Your task to perform on an android device: Go to location settings Image 0: 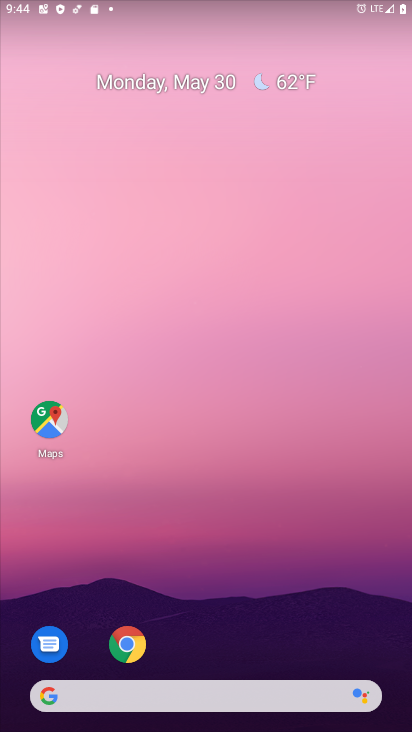
Step 0: drag from (345, 634) to (287, 143)
Your task to perform on an android device: Go to location settings Image 1: 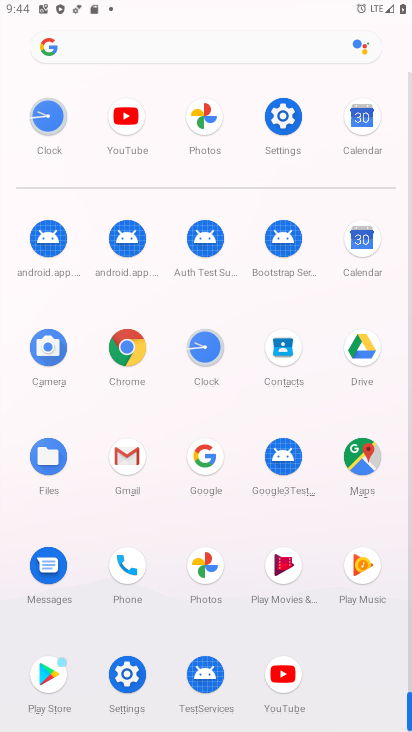
Step 1: click (123, 672)
Your task to perform on an android device: Go to location settings Image 2: 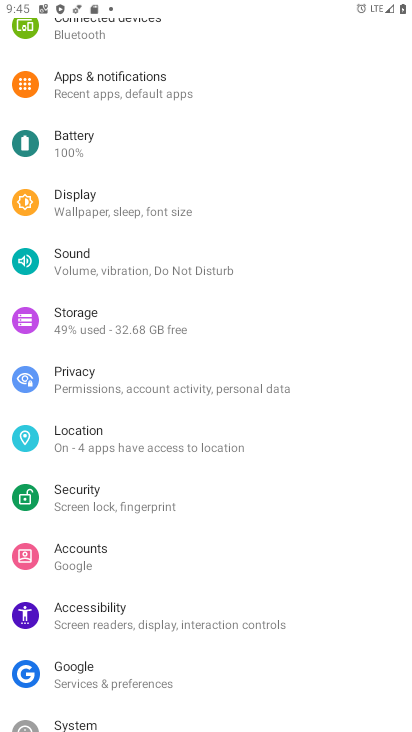
Step 2: click (77, 421)
Your task to perform on an android device: Go to location settings Image 3: 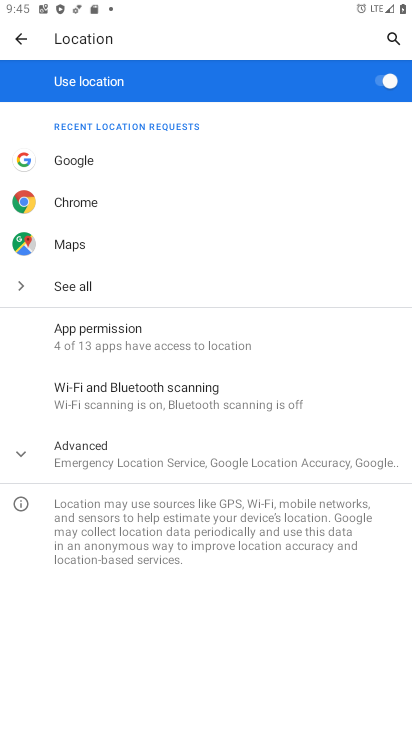
Step 3: click (16, 453)
Your task to perform on an android device: Go to location settings Image 4: 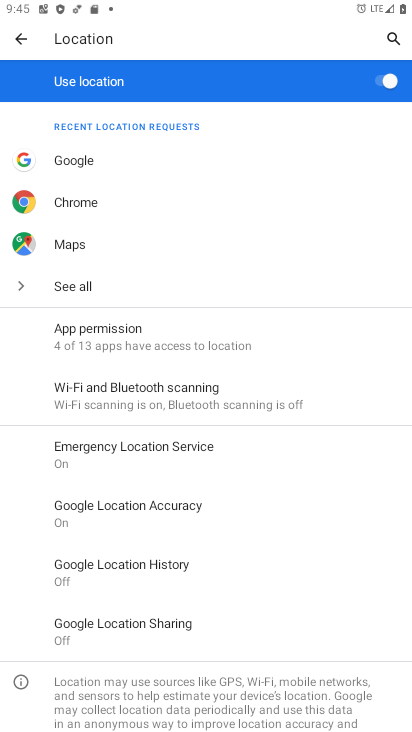
Step 4: task complete